Your task to perform on an android device: turn on data saver in the chrome app Image 0: 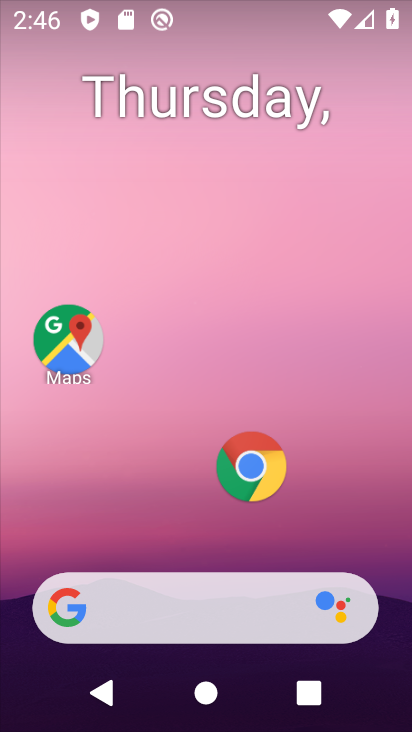
Step 0: click (267, 444)
Your task to perform on an android device: turn on data saver in the chrome app Image 1: 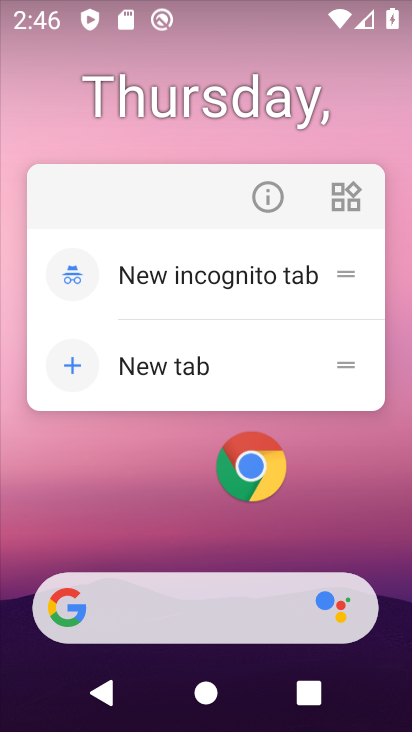
Step 1: click (267, 443)
Your task to perform on an android device: turn on data saver in the chrome app Image 2: 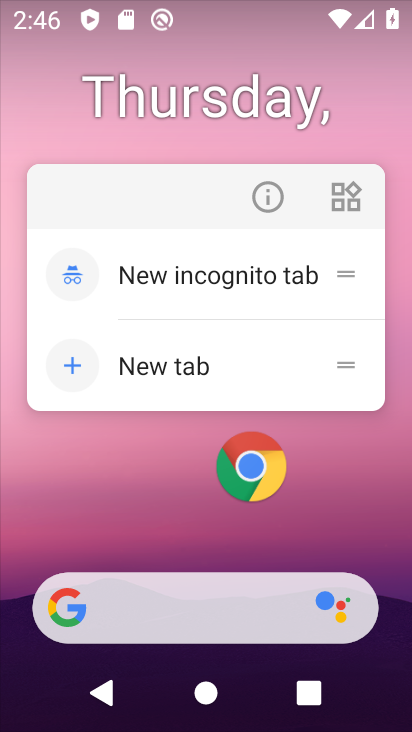
Step 2: click (253, 480)
Your task to perform on an android device: turn on data saver in the chrome app Image 3: 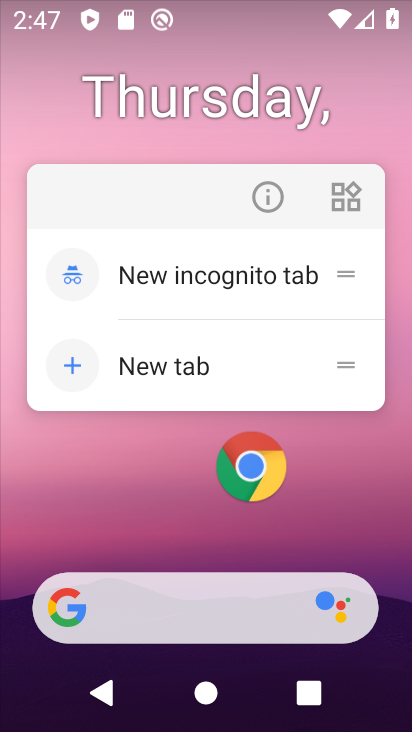
Step 3: click (253, 480)
Your task to perform on an android device: turn on data saver in the chrome app Image 4: 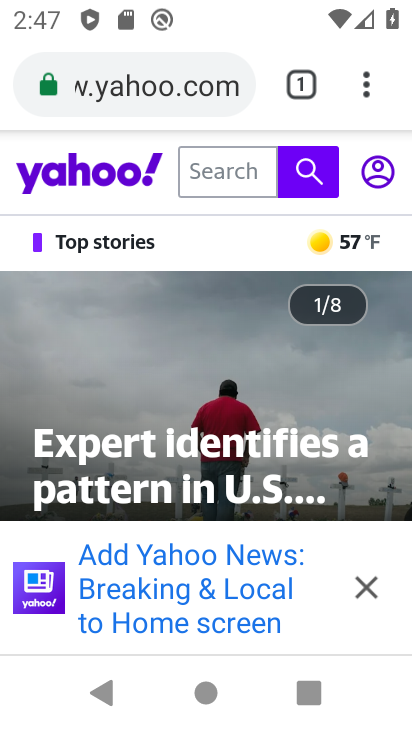
Step 4: drag from (364, 67) to (129, 525)
Your task to perform on an android device: turn on data saver in the chrome app Image 5: 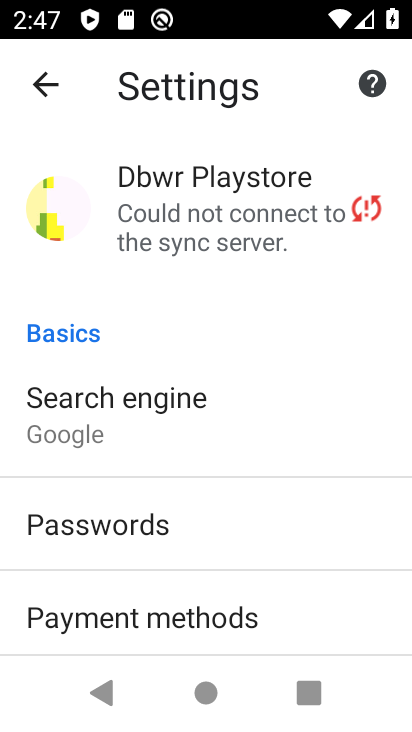
Step 5: drag from (208, 577) to (249, 180)
Your task to perform on an android device: turn on data saver in the chrome app Image 6: 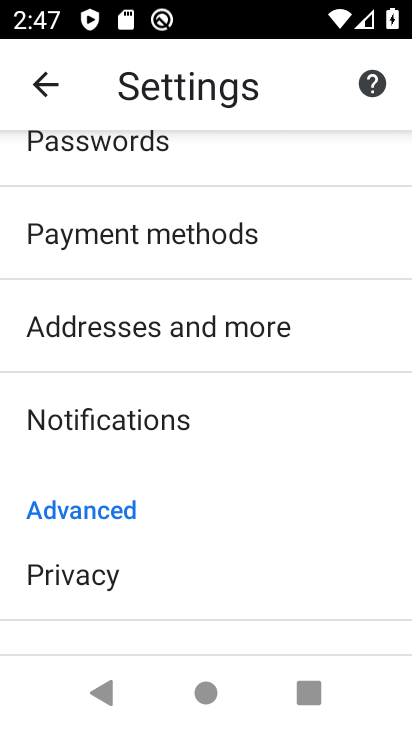
Step 6: drag from (259, 562) to (266, 231)
Your task to perform on an android device: turn on data saver in the chrome app Image 7: 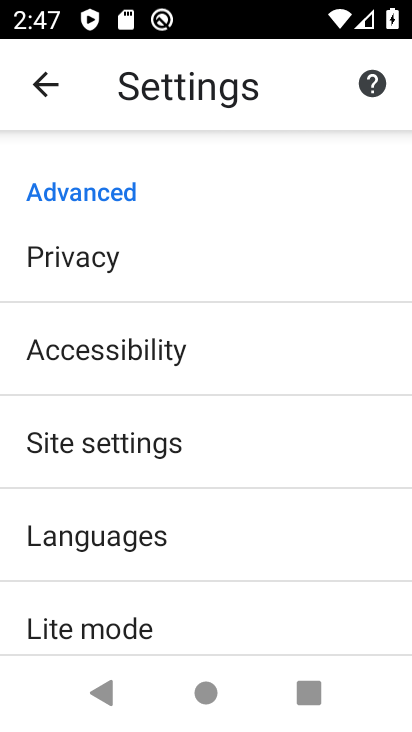
Step 7: drag from (212, 594) to (225, 357)
Your task to perform on an android device: turn on data saver in the chrome app Image 8: 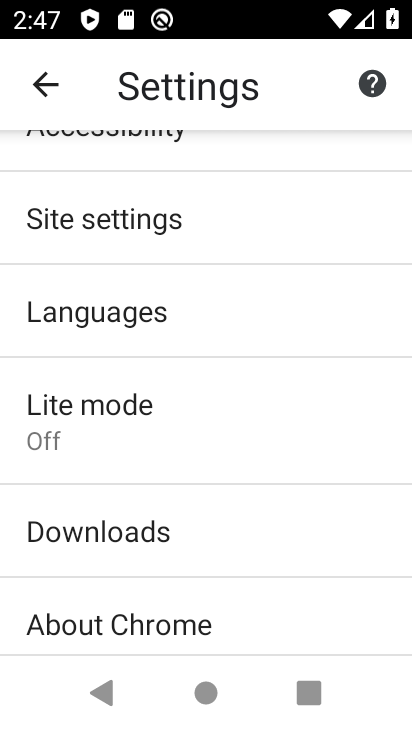
Step 8: click (159, 445)
Your task to perform on an android device: turn on data saver in the chrome app Image 9: 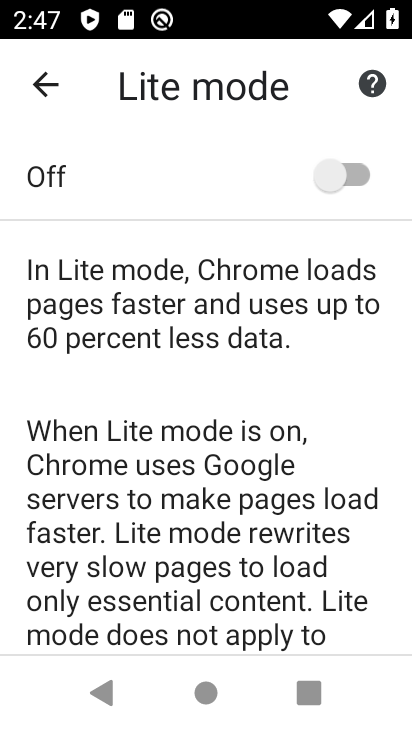
Step 9: click (349, 176)
Your task to perform on an android device: turn on data saver in the chrome app Image 10: 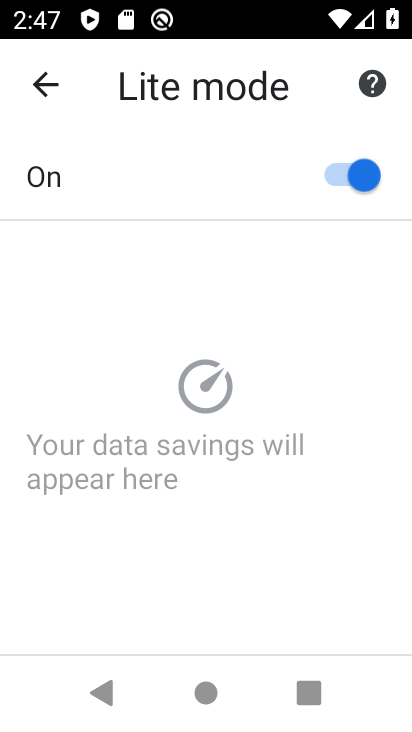
Step 10: task complete